Your task to perform on an android device: Open privacy settings Image 0: 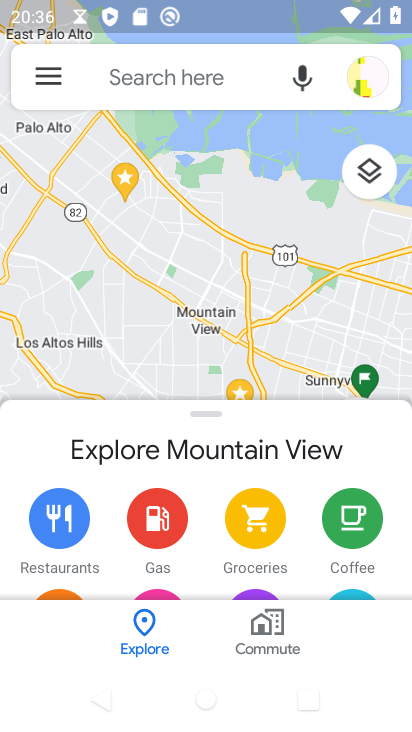
Step 0: press back button
Your task to perform on an android device: Open privacy settings Image 1: 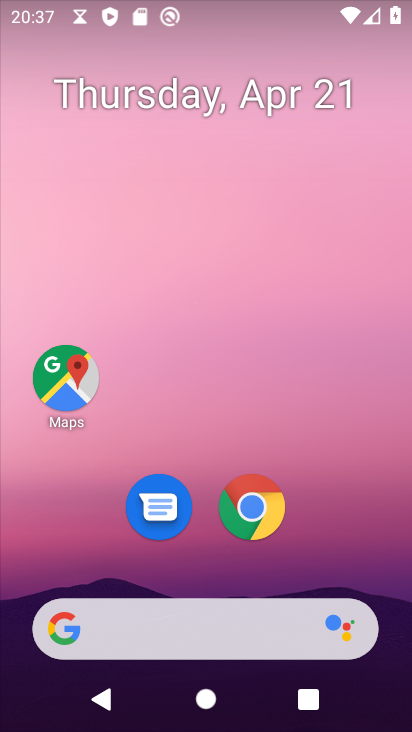
Step 1: drag from (218, 524) to (267, 132)
Your task to perform on an android device: Open privacy settings Image 2: 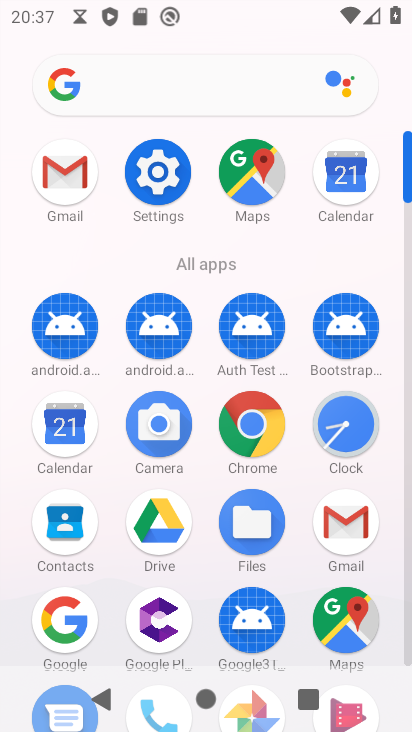
Step 2: click (158, 176)
Your task to perform on an android device: Open privacy settings Image 3: 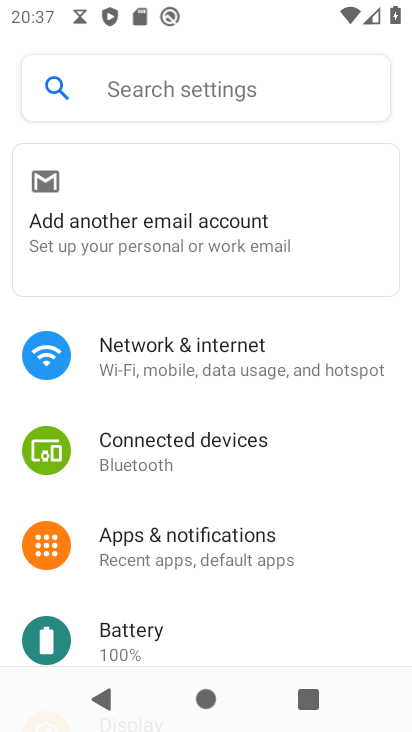
Step 3: drag from (172, 574) to (330, 43)
Your task to perform on an android device: Open privacy settings Image 4: 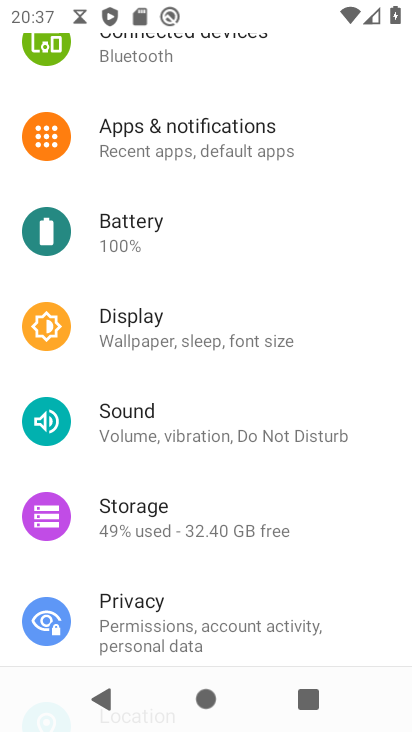
Step 4: click (173, 617)
Your task to perform on an android device: Open privacy settings Image 5: 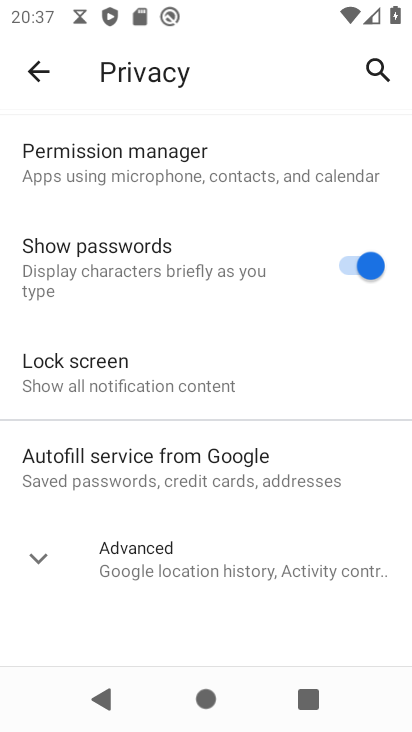
Step 5: task complete